Your task to perform on an android device: Go to notification settings Image 0: 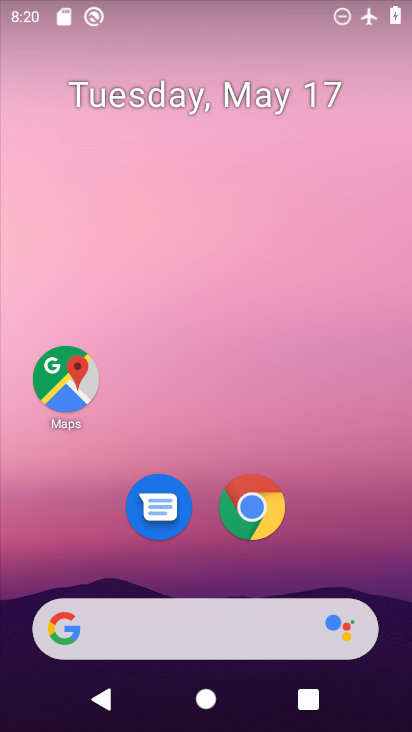
Step 0: drag from (366, 578) to (315, 0)
Your task to perform on an android device: Go to notification settings Image 1: 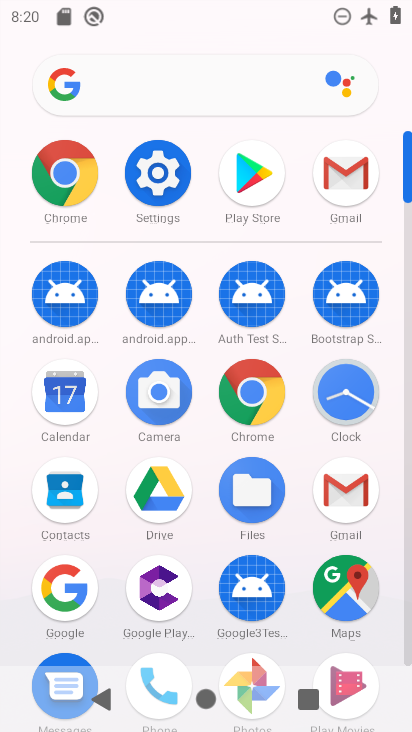
Step 1: click (170, 175)
Your task to perform on an android device: Go to notification settings Image 2: 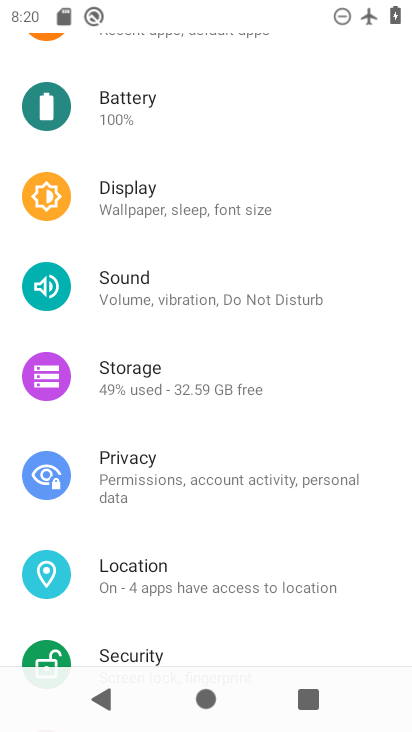
Step 2: drag from (314, 147) to (303, 464)
Your task to perform on an android device: Go to notification settings Image 3: 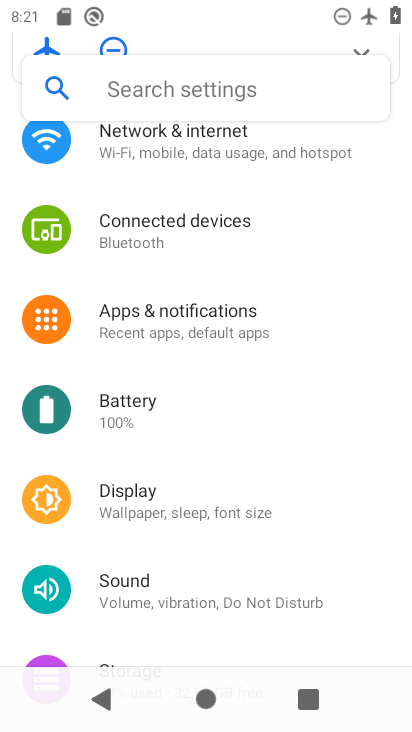
Step 3: click (138, 325)
Your task to perform on an android device: Go to notification settings Image 4: 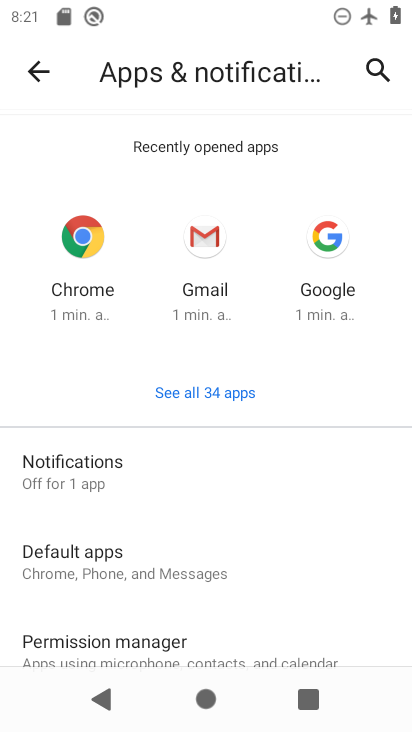
Step 4: task complete